Your task to perform on an android device: Go to battery settings Image 0: 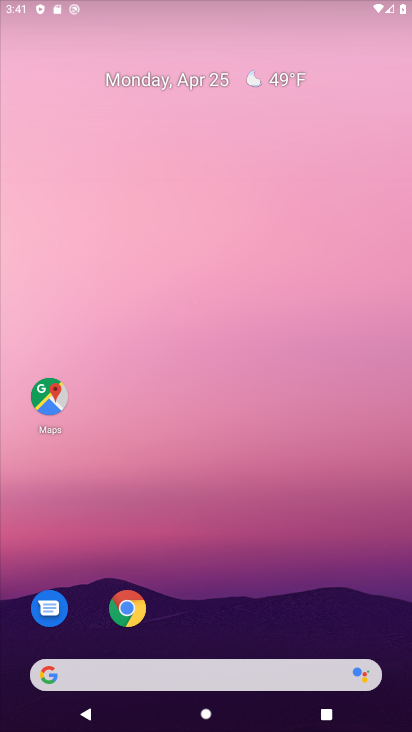
Step 0: drag from (273, 457) to (301, 217)
Your task to perform on an android device: Go to battery settings Image 1: 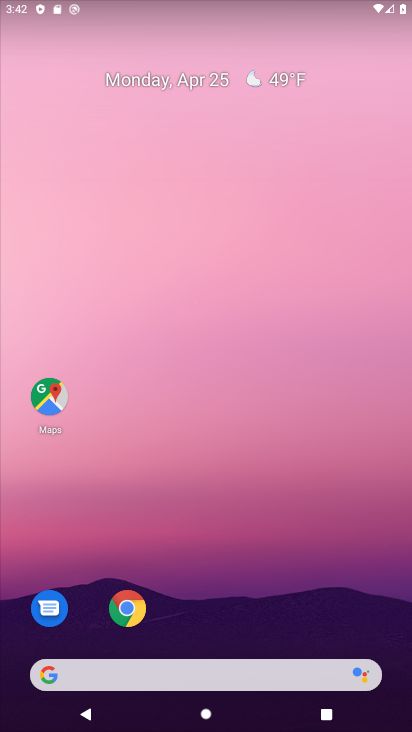
Step 1: drag from (191, 615) to (208, 281)
Your task to perform on an android device: Go to battery settings Image 2: 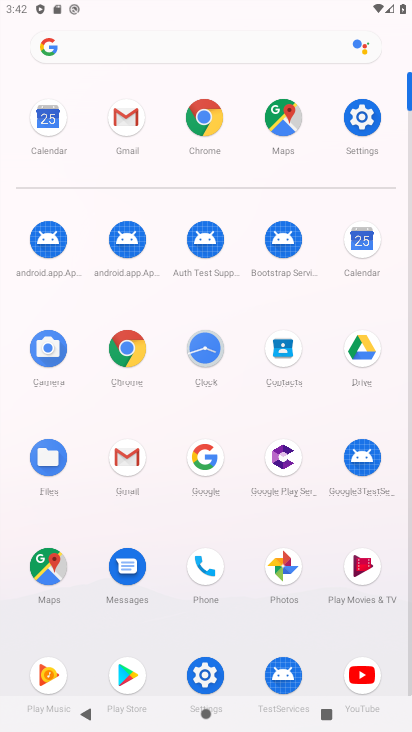
Step 2: click (364, 133)
Your task to perform on an android device: Go to battery settings Image 3: 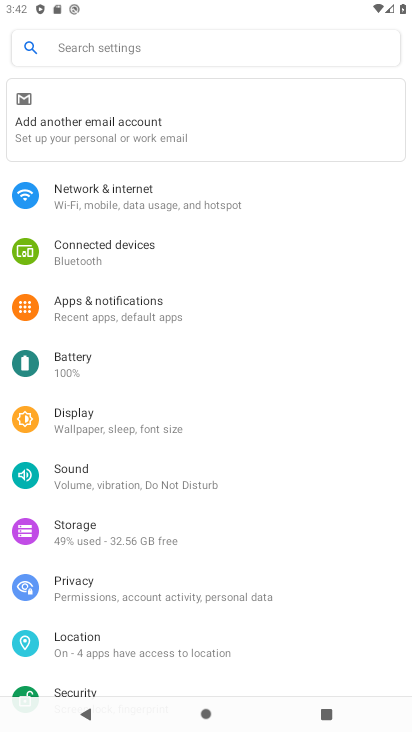
Step 3: click (136, 360)
Your task to perform on an android device: Go to battery settings Image 4: 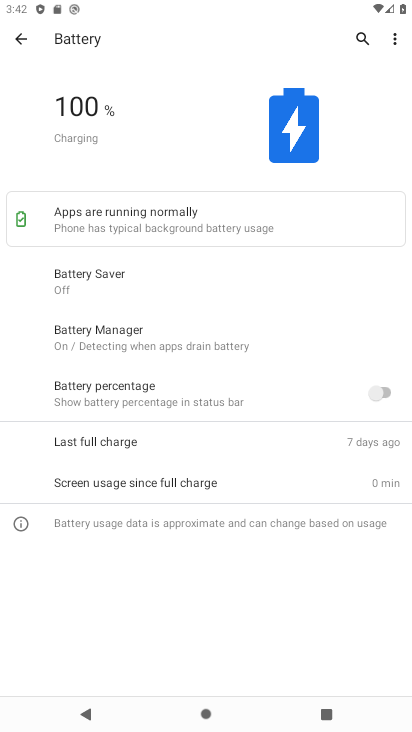
Step 4: task complete